Your task to perform on an android device: Add "logitech g pro" to the cart on amazon.com Image 0: 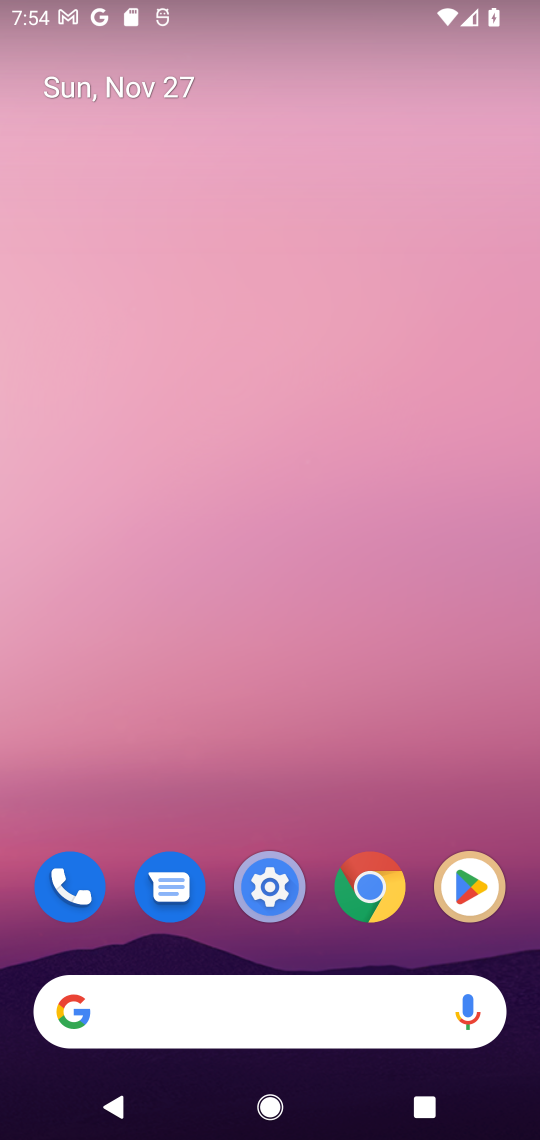
Step 0: click (249, 1021)
Your task to perform on an android device: Add "logitech g pro" to the cart on amazon.com Image 1: 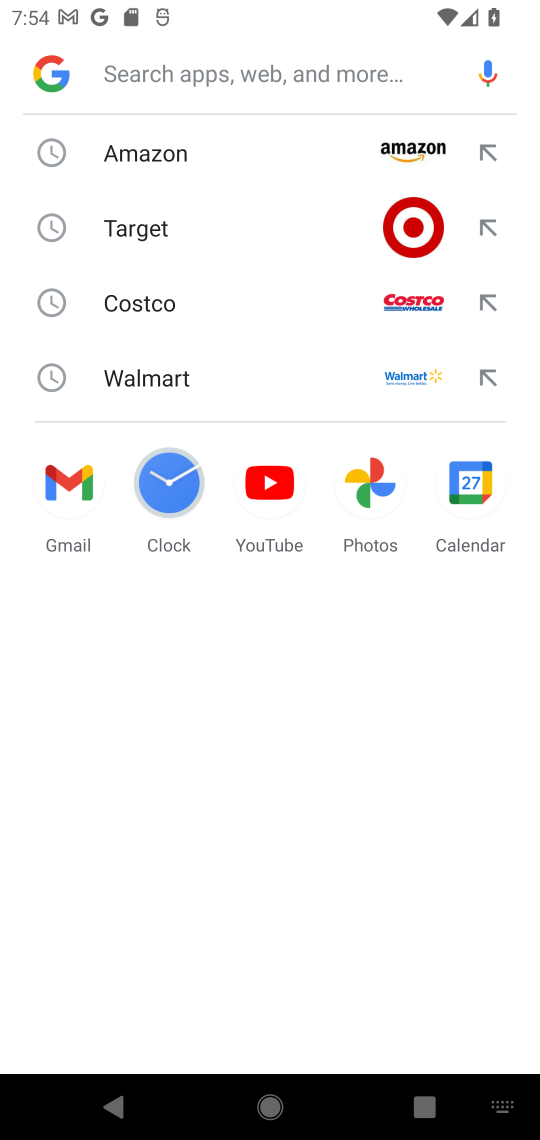
Step 1: type "amazon"
Your task to perform on an android device: Add "logitech g pro" to the cart on amazon.com Image 2: 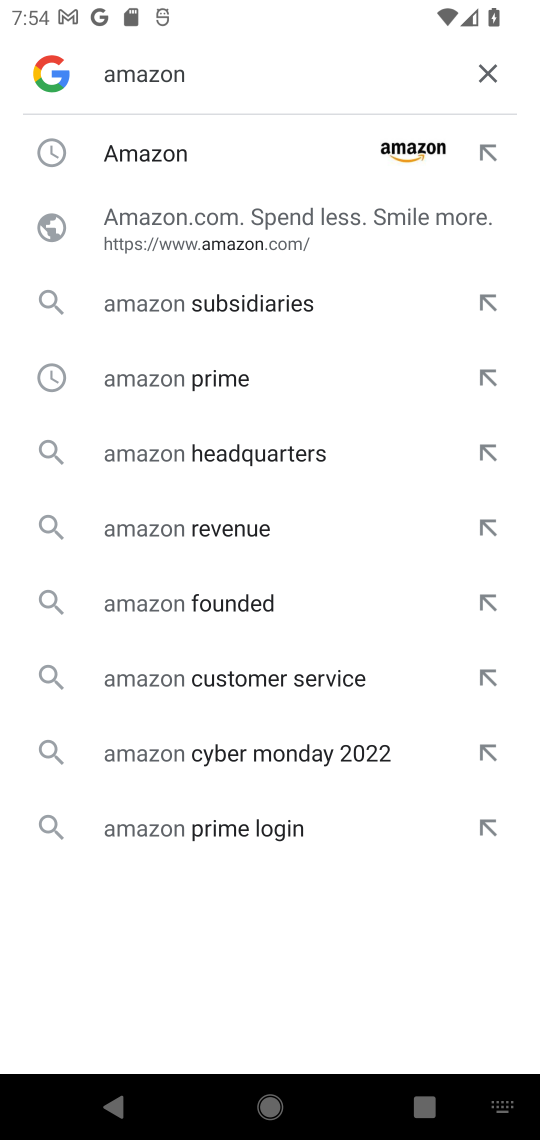
Step 2: click (231, 125)
Your task to perform on an android device: Add "logitech g pro" to the cart on amazon.com Image 3: 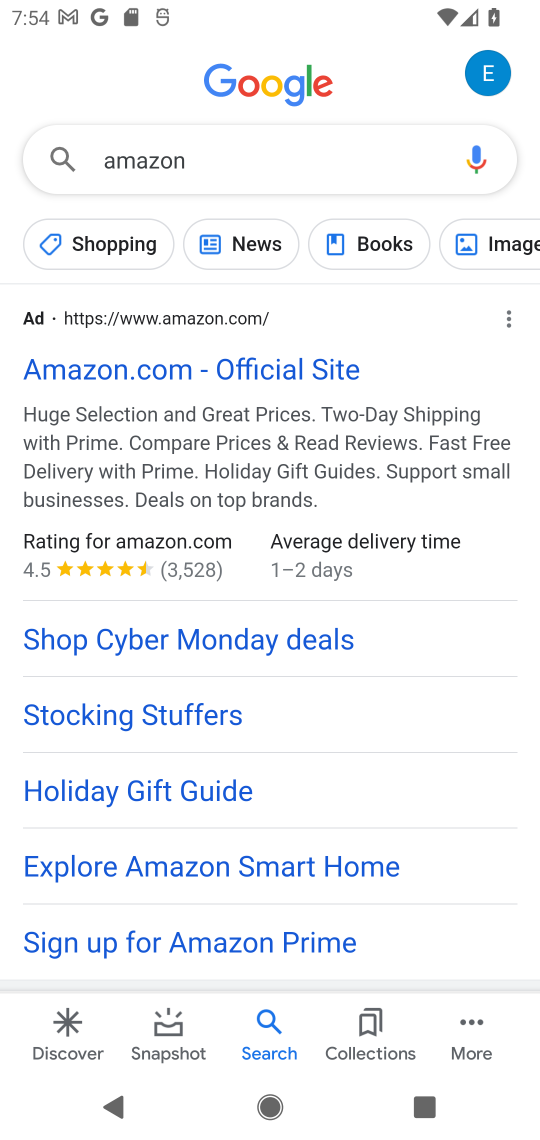
Step 3: click (189, 376)
Your task to perform on an android device: Add "logitech g pro" to the cart on amazon.com Image 4: 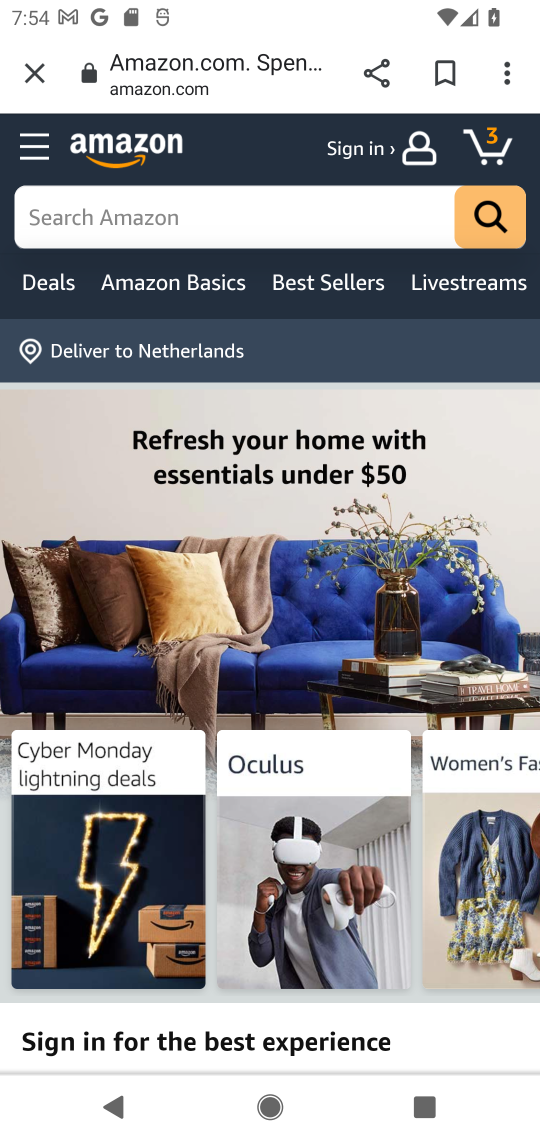
Step 4: click (247, 222)
Your task to perform on an android device: Add "logitech g pro" to the cart on amazon.com Image 5: 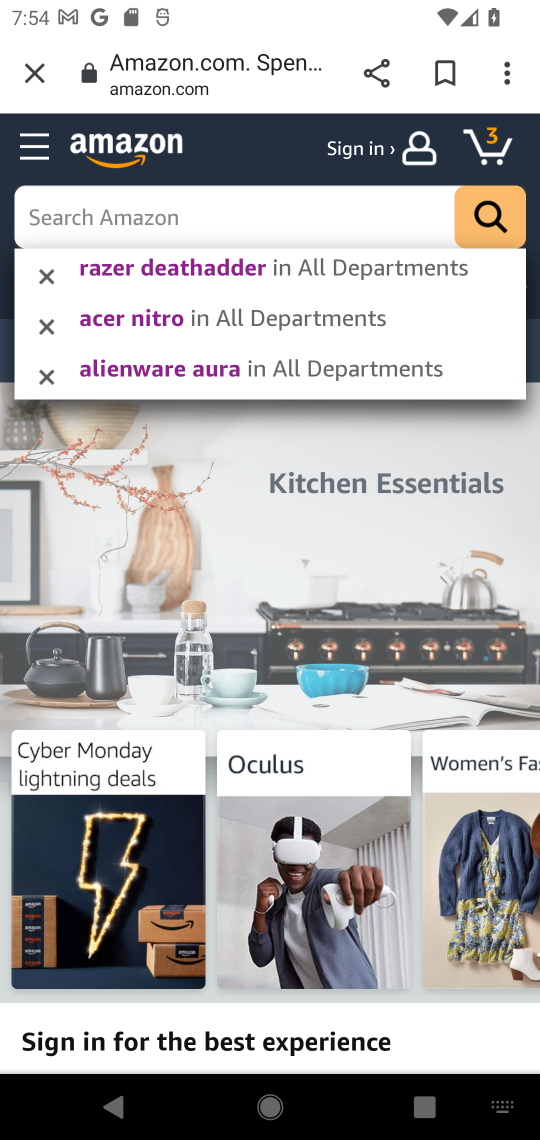
Step 5: type "amazon"
Your task to perform on an android device: Add "logitech g pro" to the cart on amazon.com Image 6: 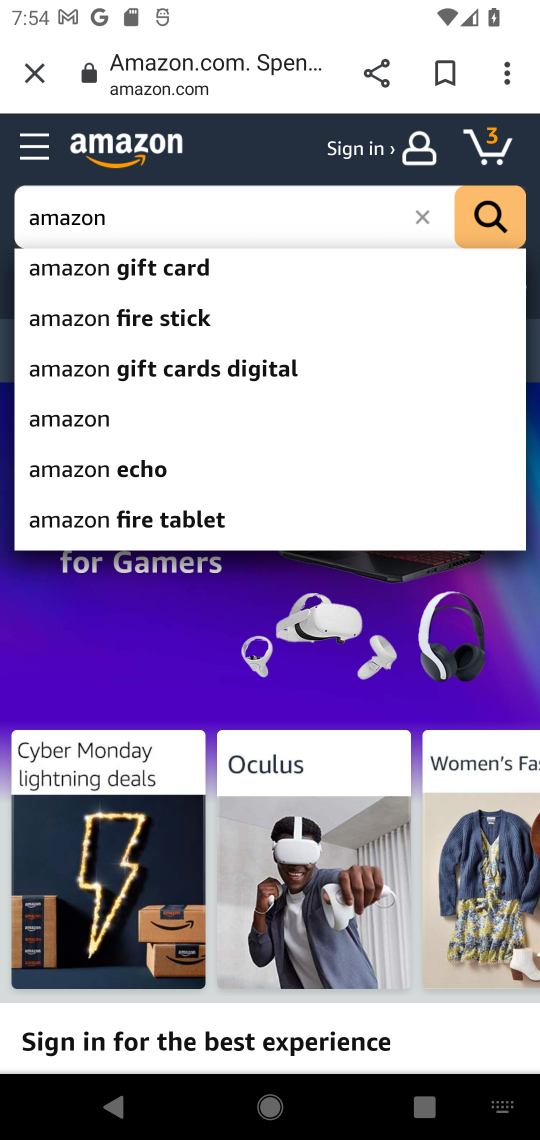
Step 6: click (414, 241)
Your task to perform on an android device: Add "logitech g pro" to the cart on amazon.com Image 7: 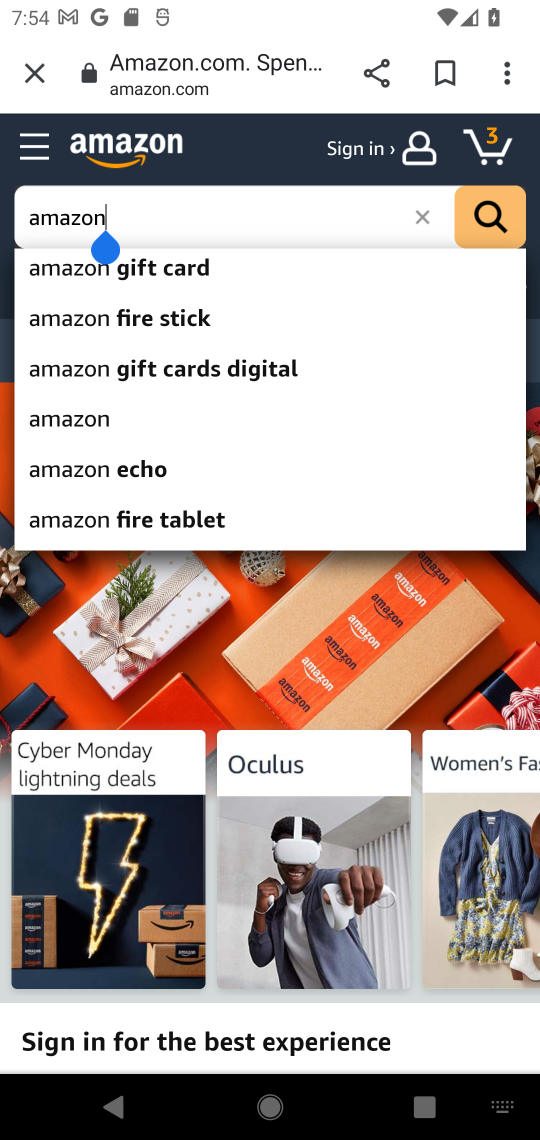
Step 7: click (431, 230)
Your task to perform on an android device: Add "logitech g pro" to the cart on amazon.com Image 8: 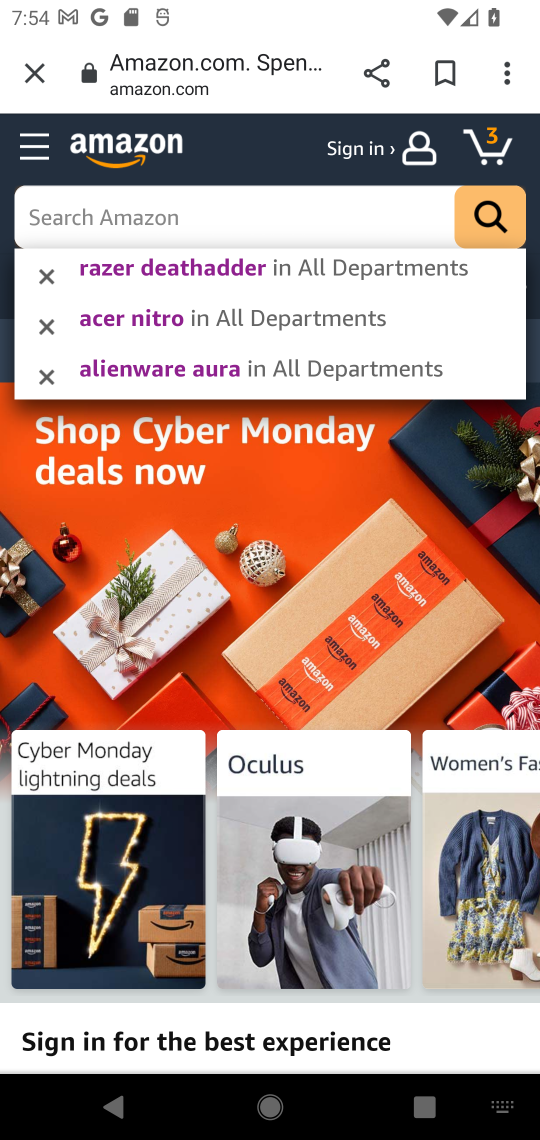
Step 8: click (421, 223)
Your task to perform on an android device: Add "logitech g pro" to the cart on amazon.com Image 9: 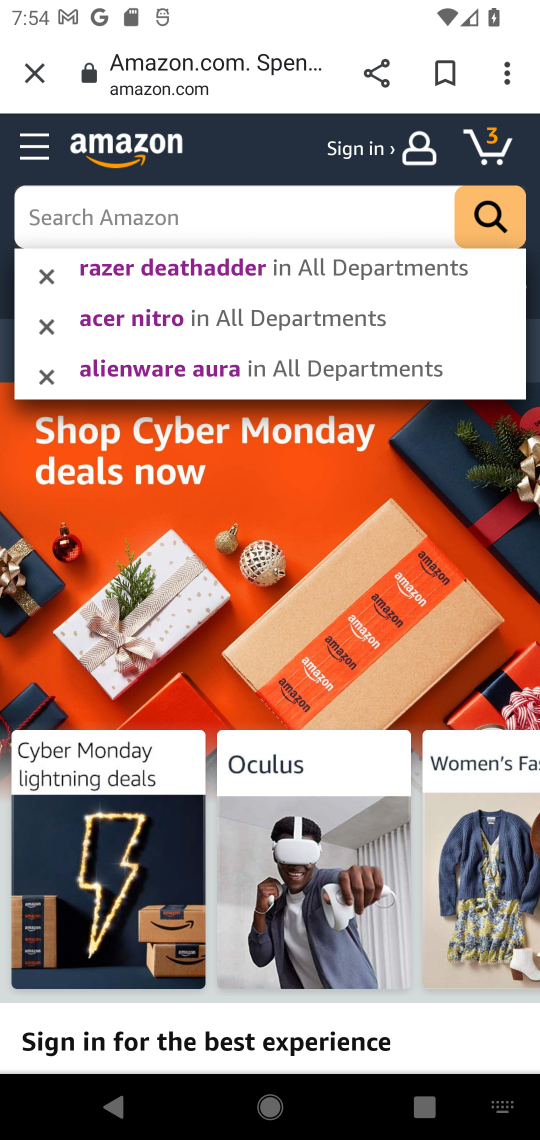
Step 9: type "logitech g pro"
Your task to perform on an android device: Add "logitech g pro" to the cart on amazon.com Image 10: 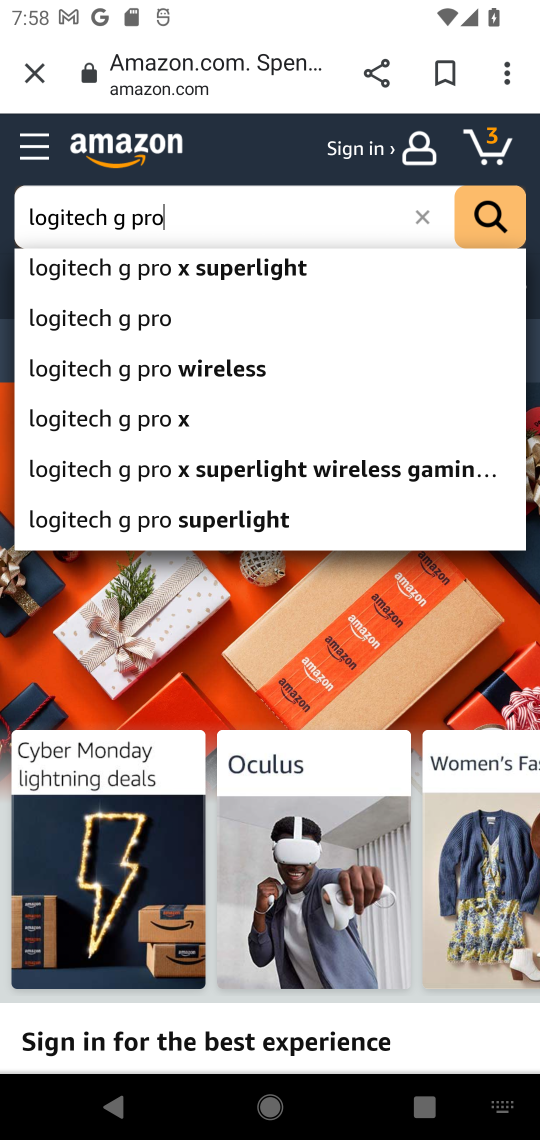
Step 10: click (480, 237)
Your task to perform on an android device: Add "logitech g pro" to the cart on amazon.com Image 11: 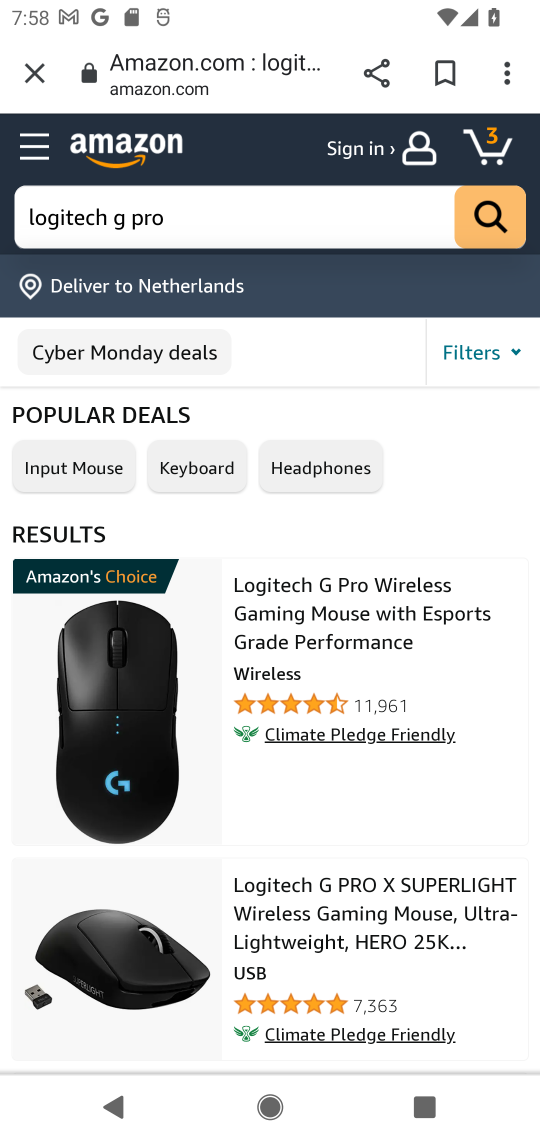
Step 11: click (357, 637)
Your task to perform on an android device: Add "logitech g pro" to the cart on amazon.com Image 12: 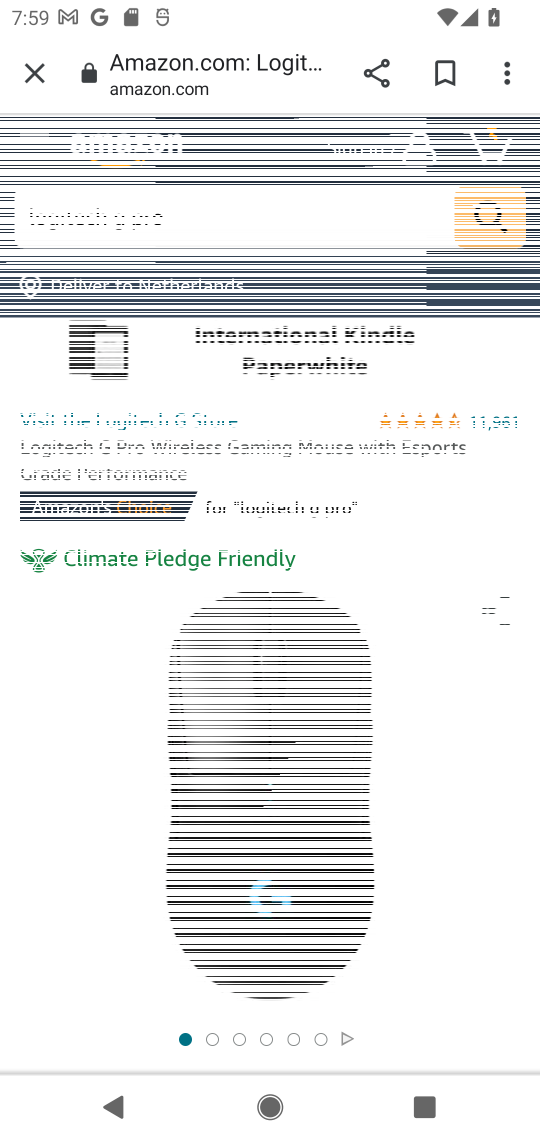
Step 12: task complete